Your task to perform on an android device: change the clock display to digital Image 0: 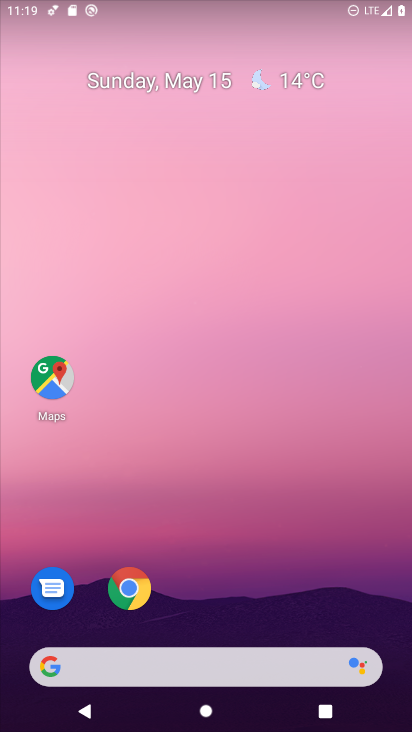
Step 0: drag from (256, 611) to (259, 14)
Your task to perform on an android device: change the clock display to digital Image 1: 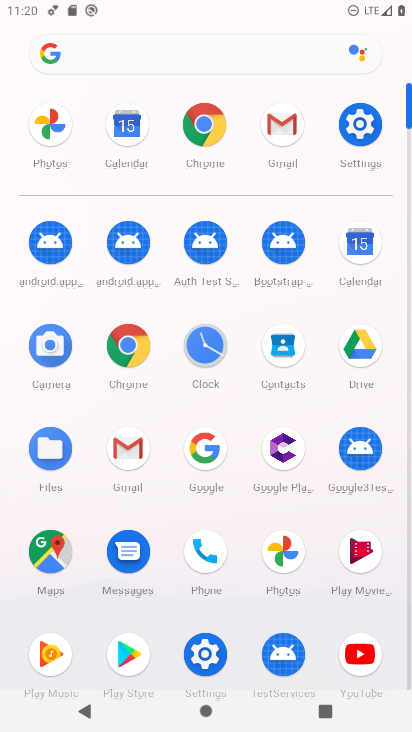
Step 1: click (208, 350)
Your task to perform on an android device: change the clock display to digital Image 2: 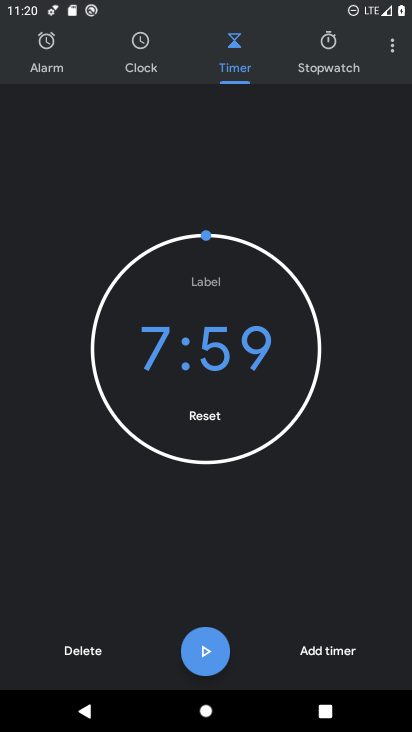
Step 2: click (388, 48)
Your task to perform on an android device: change the clock display to digital Image 3: 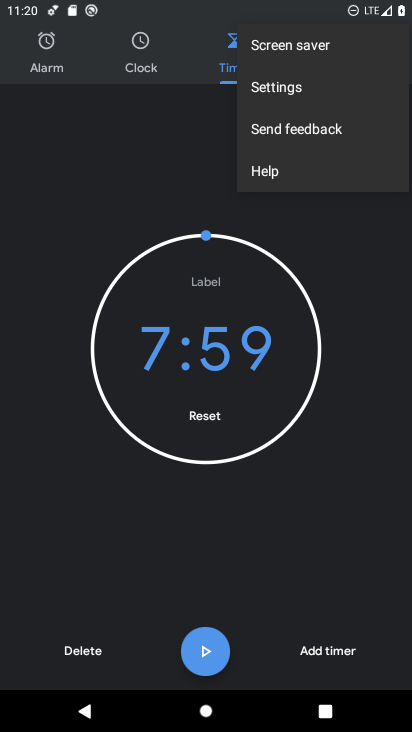
Step 3: click (272, 84)
Your task to perform on an android device: change the clock display to digital Image 4: 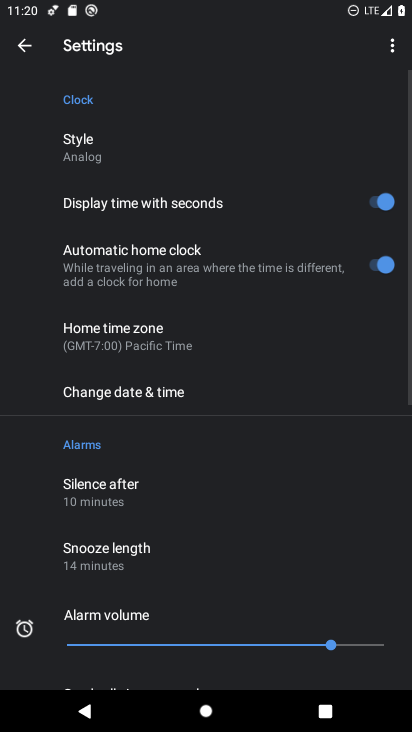
Step 4: click (110, 165)
Your task to perform on an android device: change the clock display to digital Image 5: 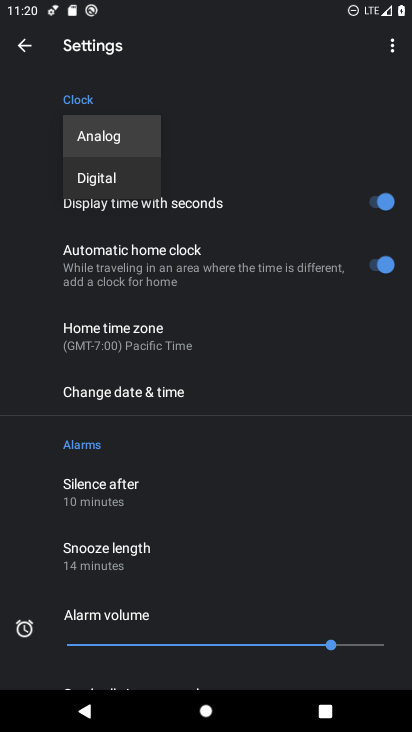
Step 5: click (126, 178)
Your task to perform on an android device: change the clock display to digital Image 6: 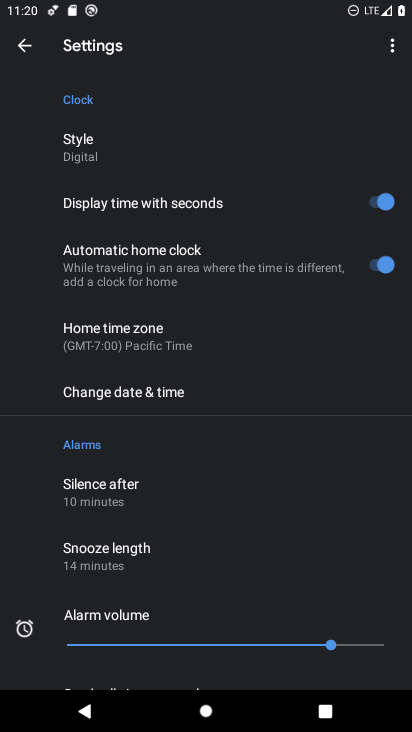
Step 6: task complete